Your task to perform on an android device: install app "Booking.com: Hotels and more" Image 0: 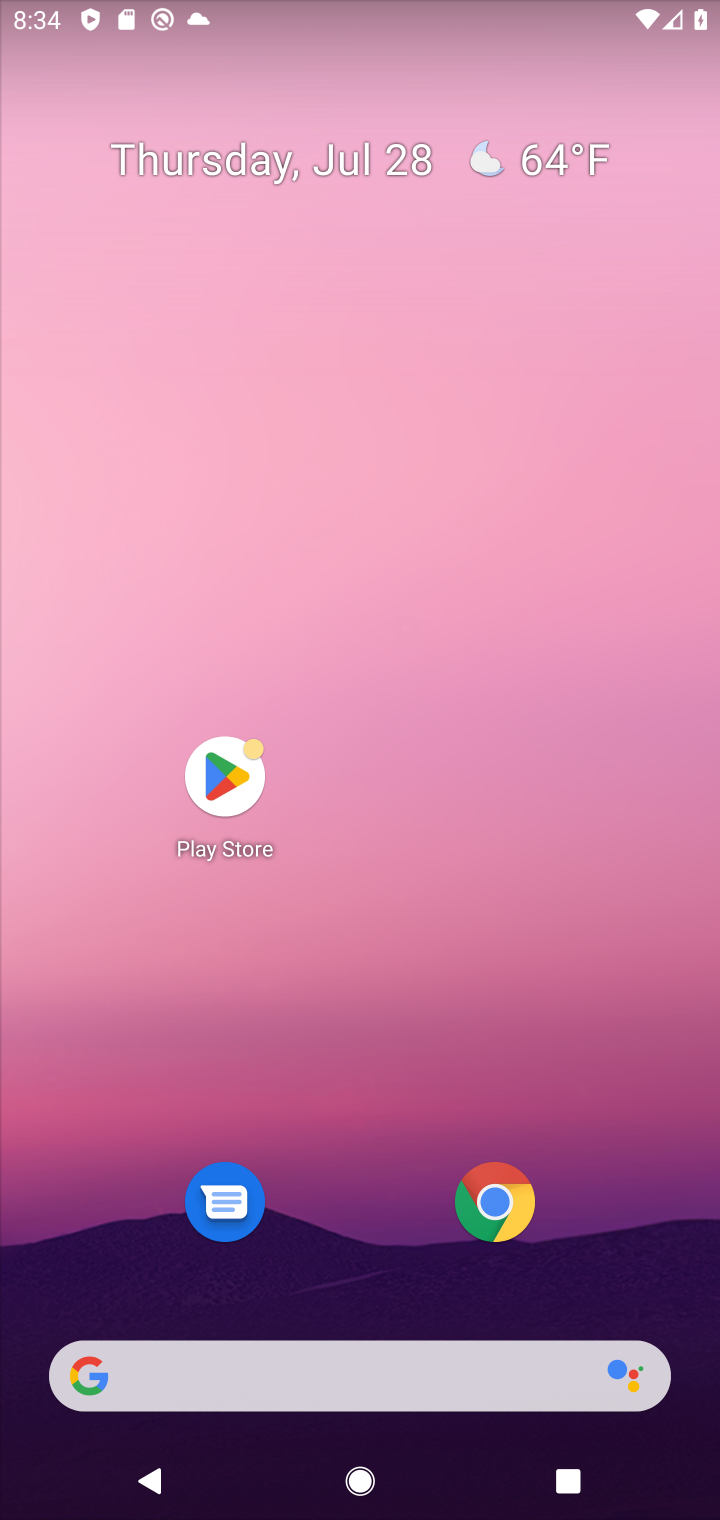
Step 0: click (225, 770)
Your task to perform on an android device: install app "Booking.com: Hotels and more" Image 1: 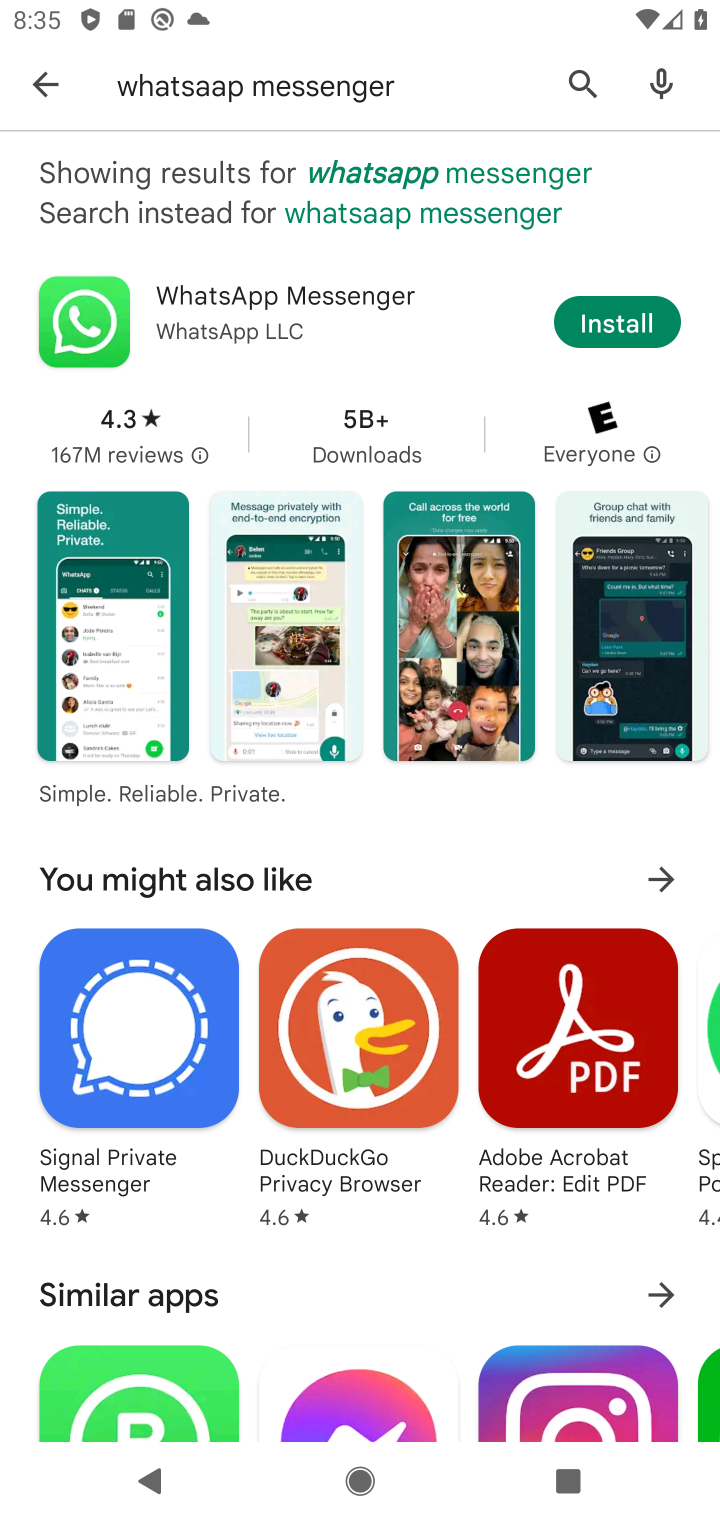
Step 1: click (43, 85)
Your task to perform on an android device: install app "Booking.com: Hotels and more" Image 2: 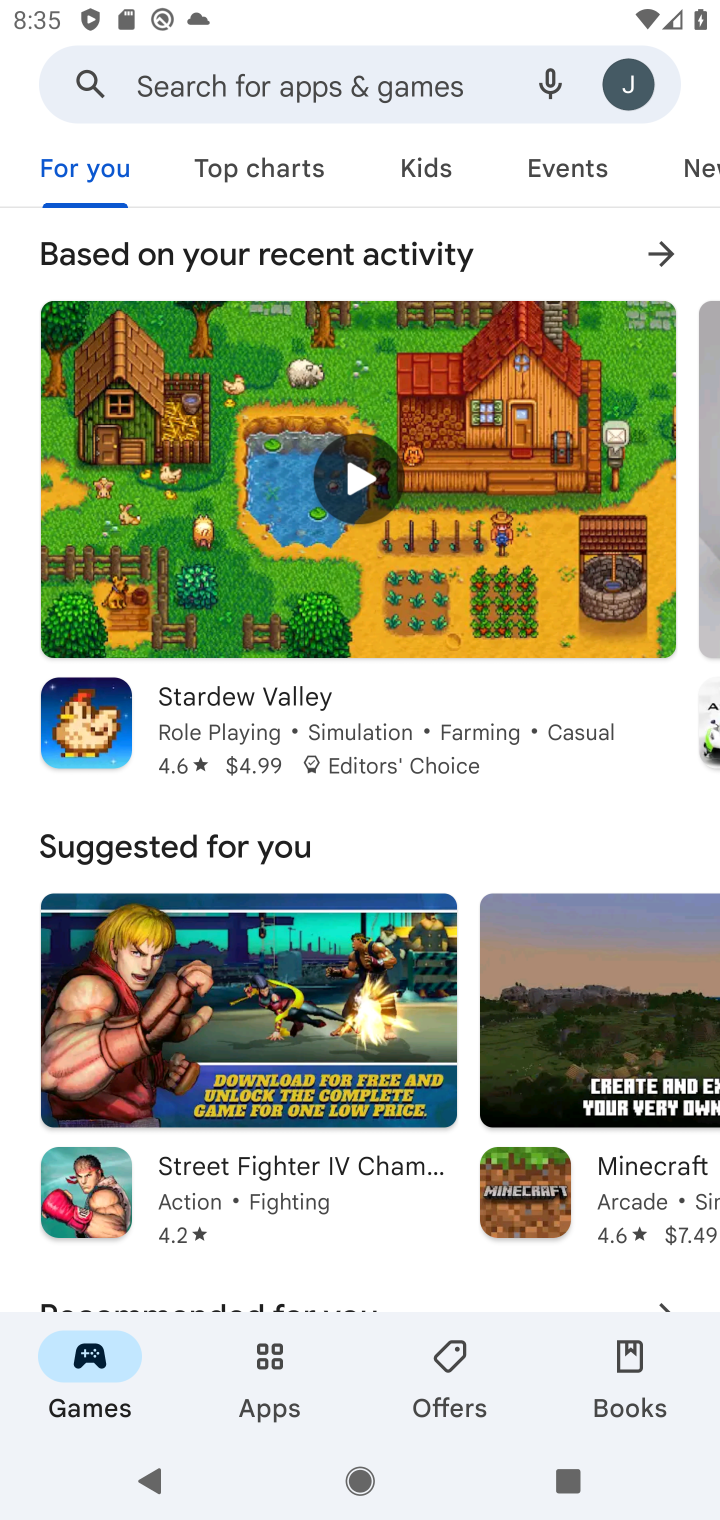
Step 2: click (273, 76)
Your task to perform on an android device: install app "Booking.com: Hotels and more" Image 3: 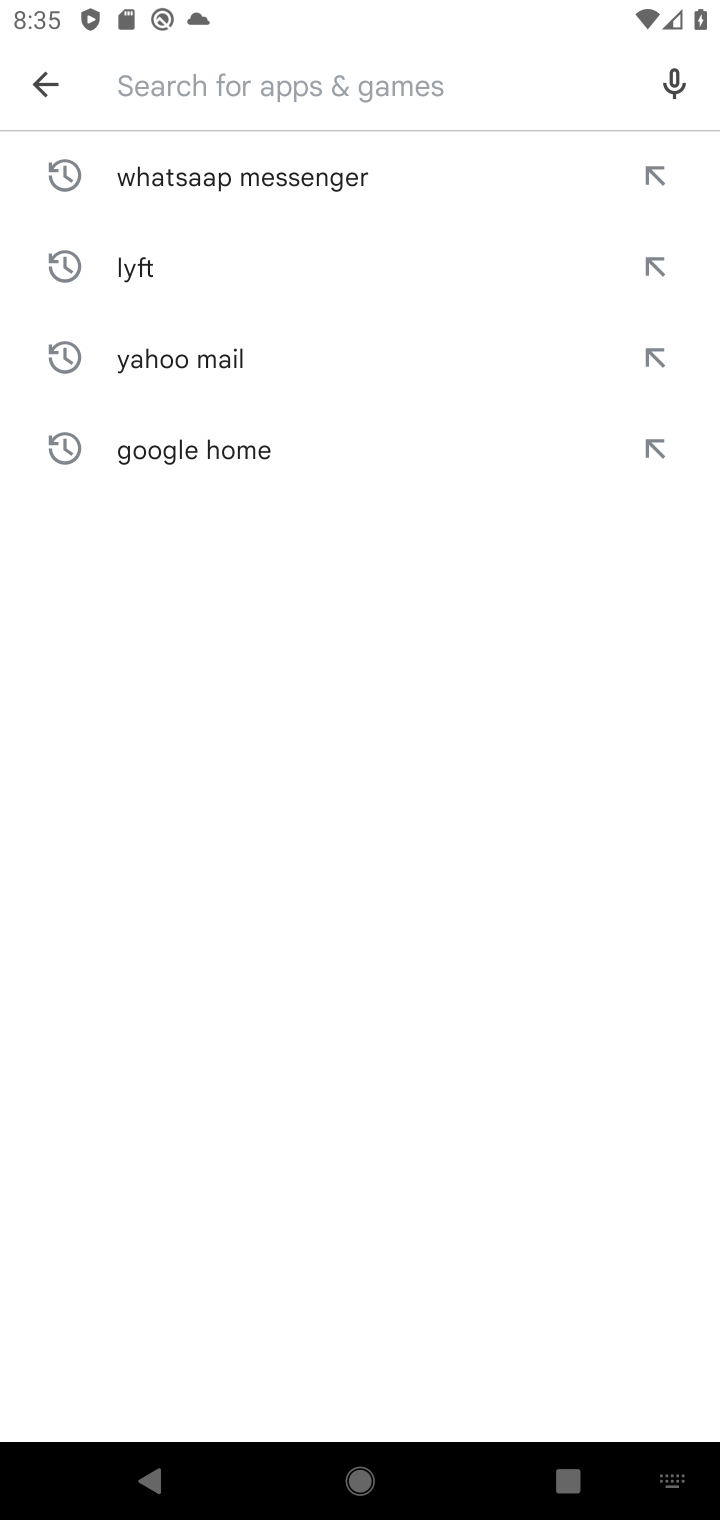
Step 3: type "Booking.com: Hotels and more"
Your task to perform on an android device: install app "Booking.com: Hotels and more" Image 4: 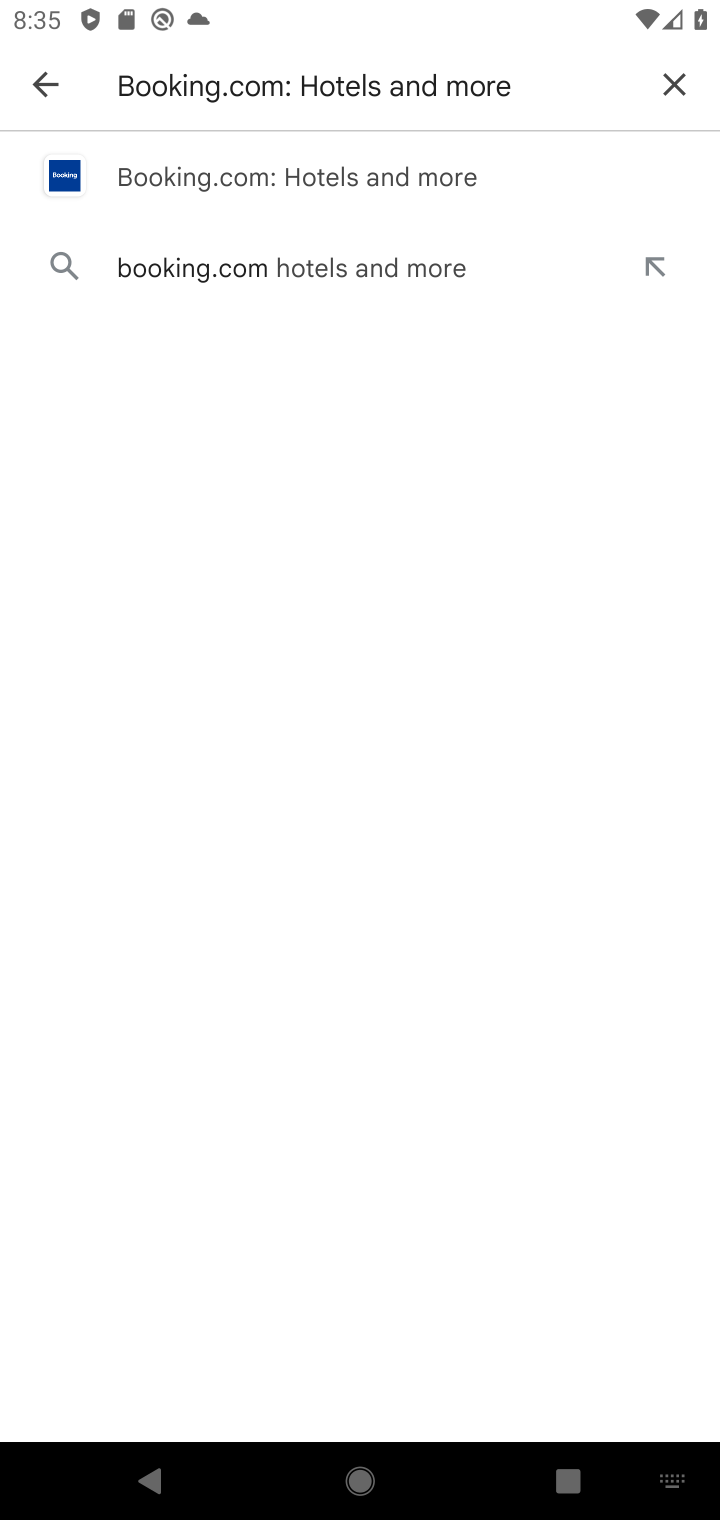
Step 4: click (232, 185)
Your task to perform on an android device: install app "Booking.com: Hotels and more" Image 5: 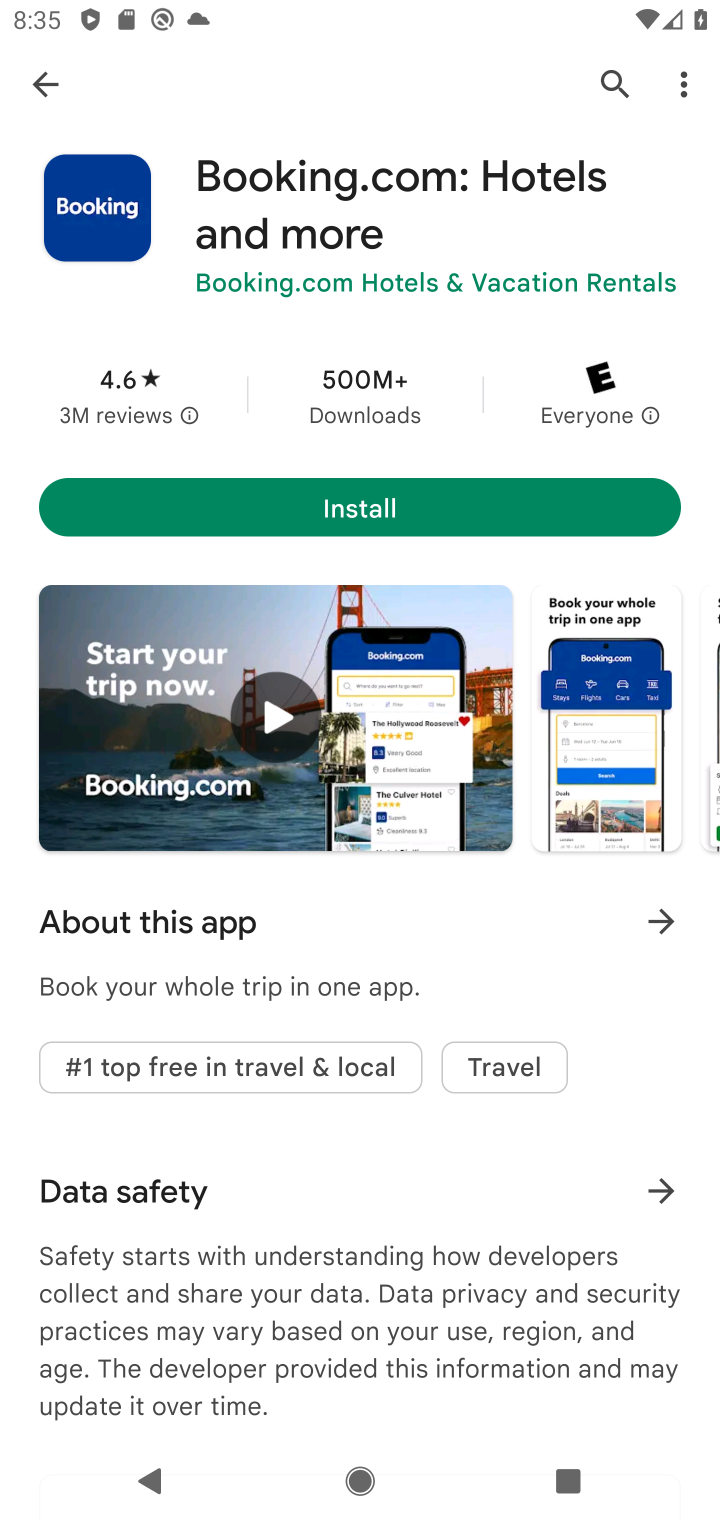
Step 5: click (346, 511)
Your task to perform on an android device: install app "Booking.com: Hotels and more" Image 6: 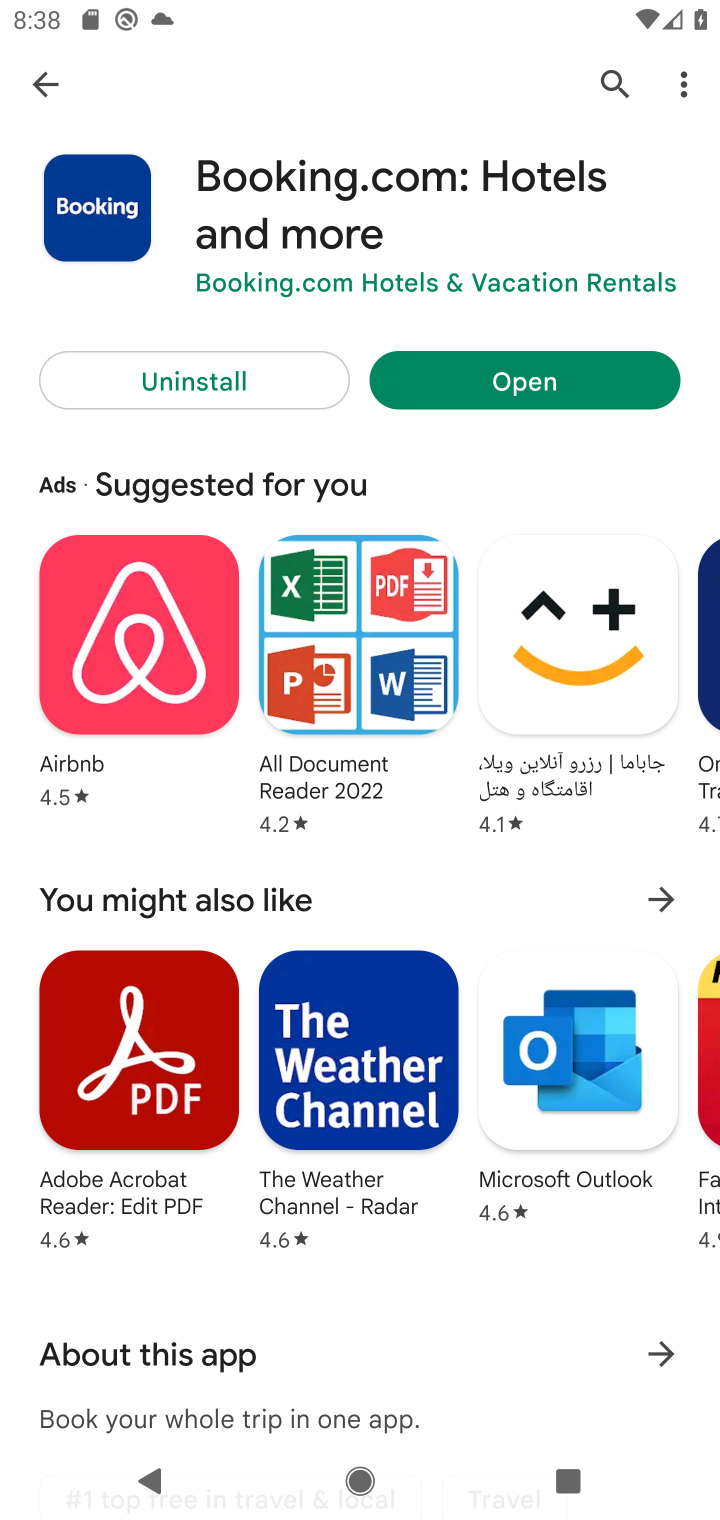
Step 6: task complete